Your task to perform on an android device: find photos in the google photos app Image 0: 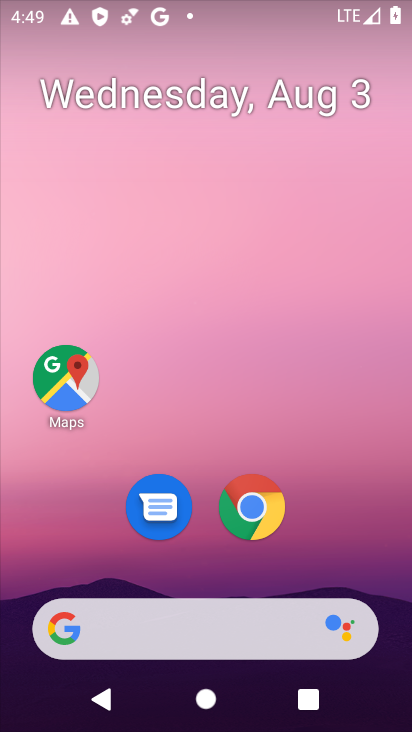
Step 0: drag from (353, 528) to (353, 29)
Your task to perform on an android device: find photos in the google photos app Image 1: 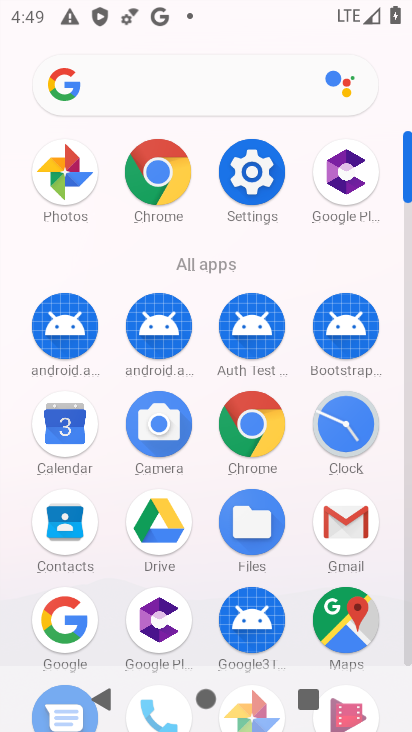
Step 1: drag from (296, 588) to (309, 181)
Your task to perform on an android device: find photos in the google photos app Image 2: 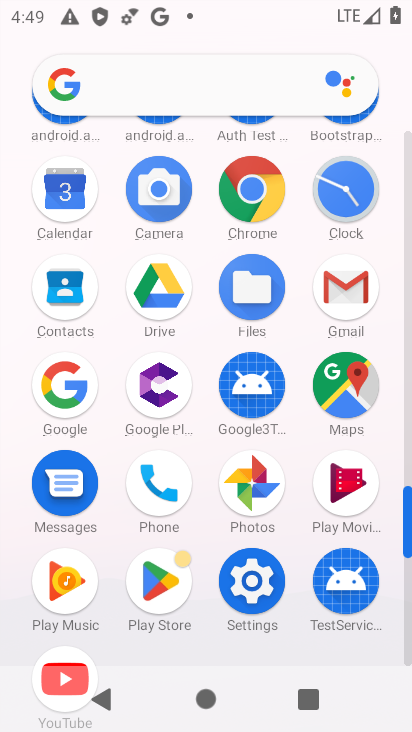
Step 2: click (237, 469)
Your task to perform on an android device: find photos in the google photos app Image 3: 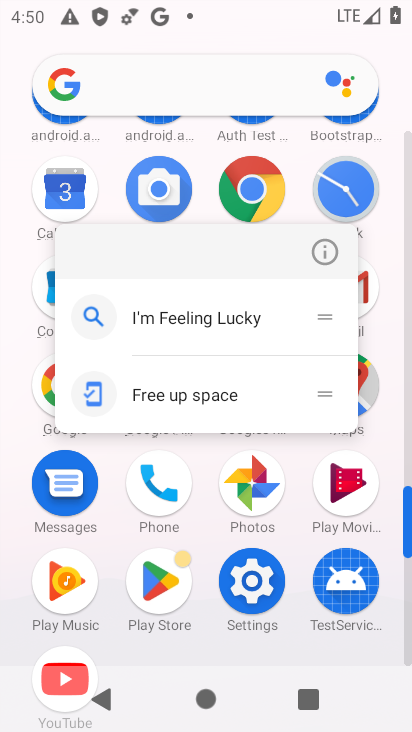
Step 3: click (246, 507)
Your task to perform on an android device: find photos in the google photos app Image 4: 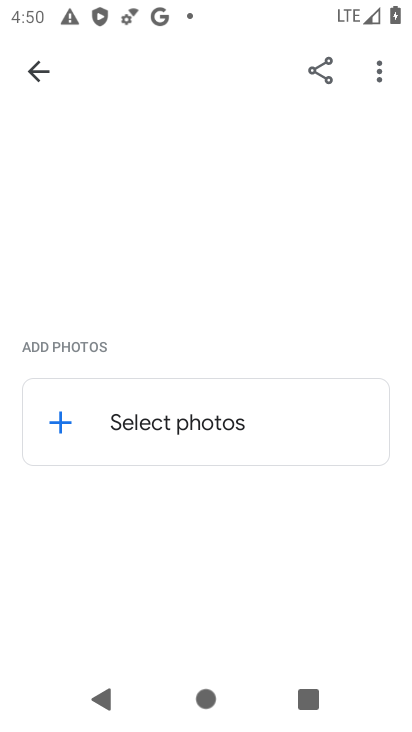
Step 4: click (43, 65)
Your task to perform on an android device: find photos in the google photos app Image 5: 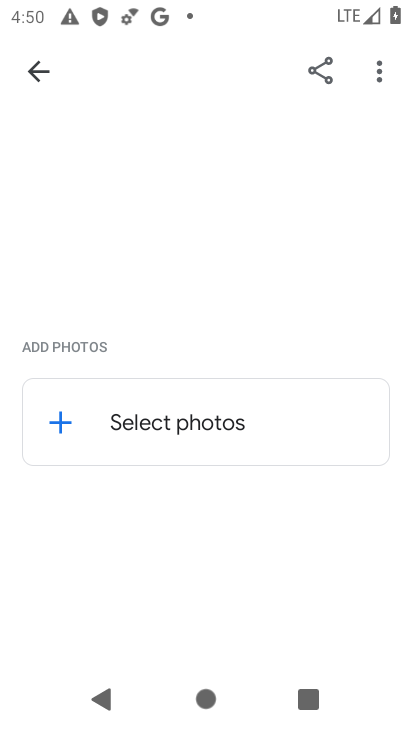
Step 5: click (43, 78)
Your task to perform on an android device: find photos in the google photos app Image 6: 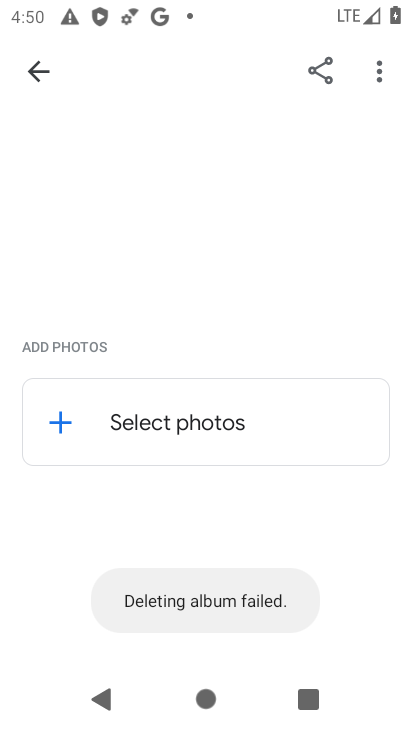
Step 6: task complete